Your task to perform on an android device: open wifi settings Image 0: 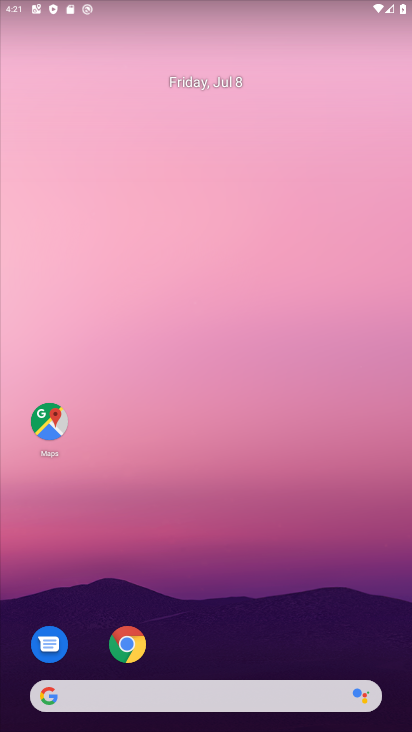
Step 0: press home button
Your task to perform on an android device: open wifi settings Image 1: 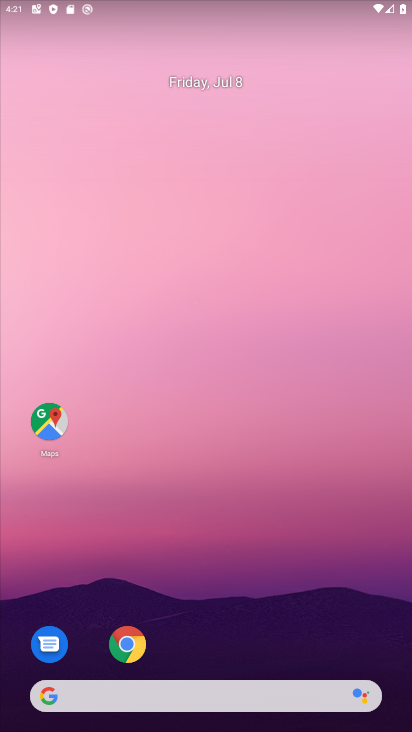
Step 1: drag from (214, 650) to (257, 28)
Your task to perform on an android device: open wifi settings Image 2: 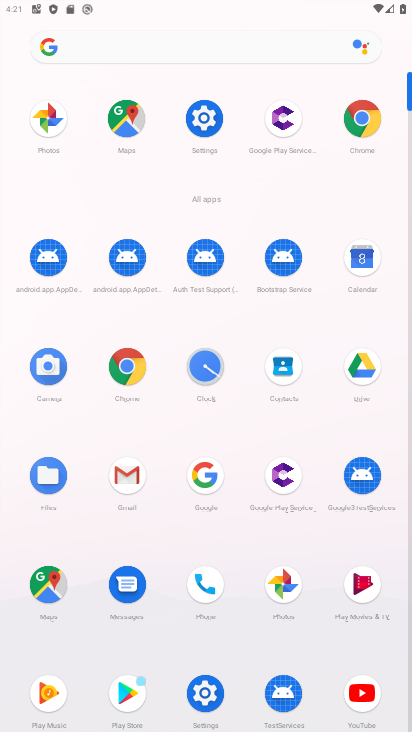
Step 2: click (201, 116)
Your task to perform on an android device: open wifi settings Image 3: 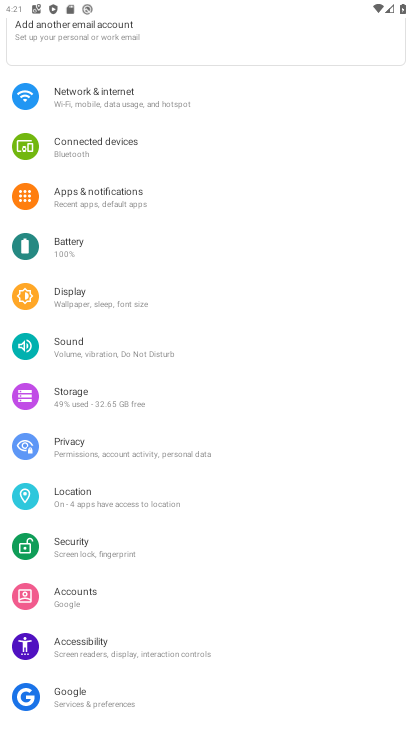
Step 3: click (153, 90)
Your task to perform on an android device: open wifi settings Image 4: 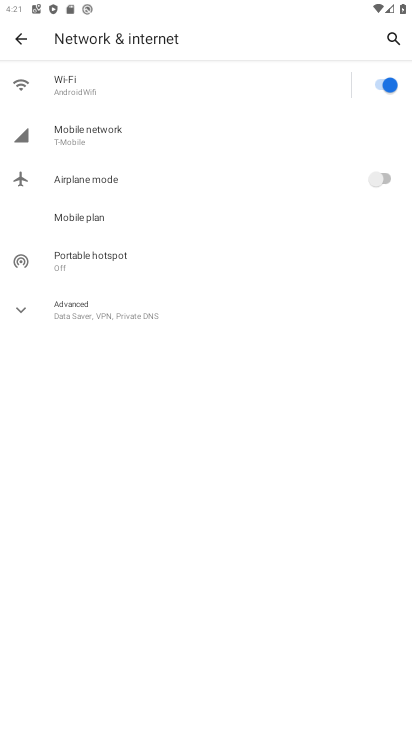
Step 4: click (22, 306)
Your task to perform on an android device: open wifi settings Image 5: 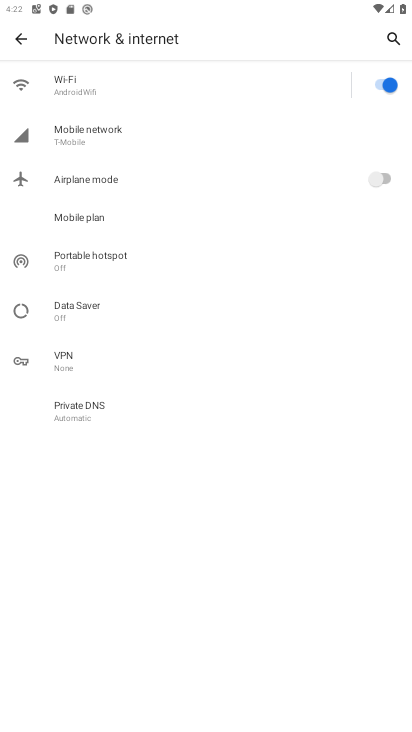
Step 5: click (109, 81)
Your task to perform on an android device: open wifi settings Image 6: 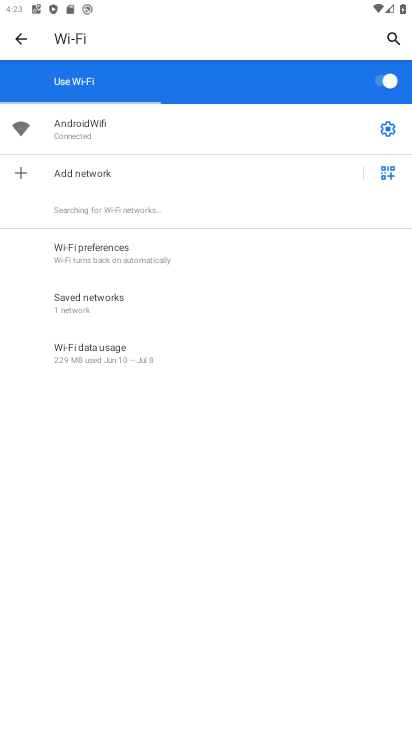
Step 6: task complete